Your task to perform on an android device: When is my next appointment? Image 0: 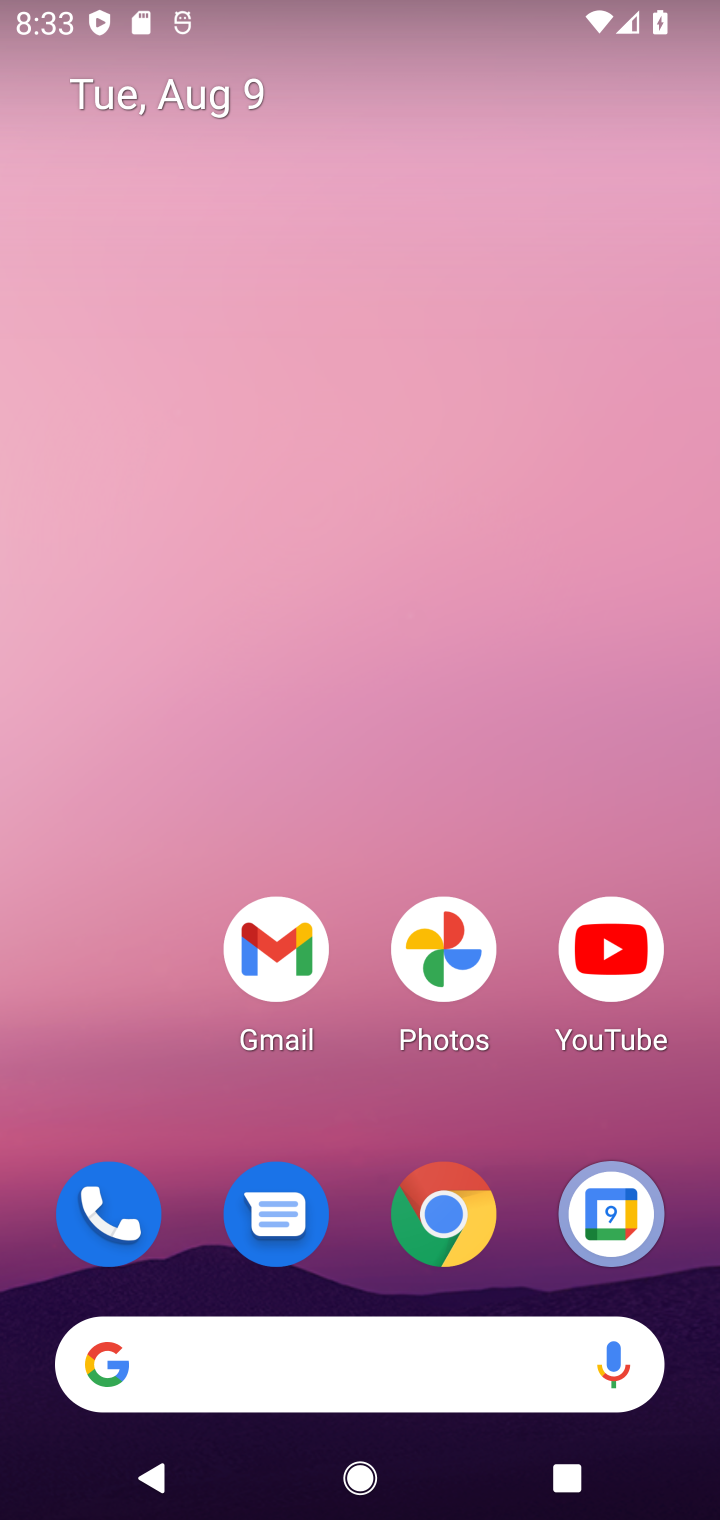
Step 0: drag from (87, 1351) to (306, 831)
Your task to perform on an android device: When is my next appointment? Image 1: 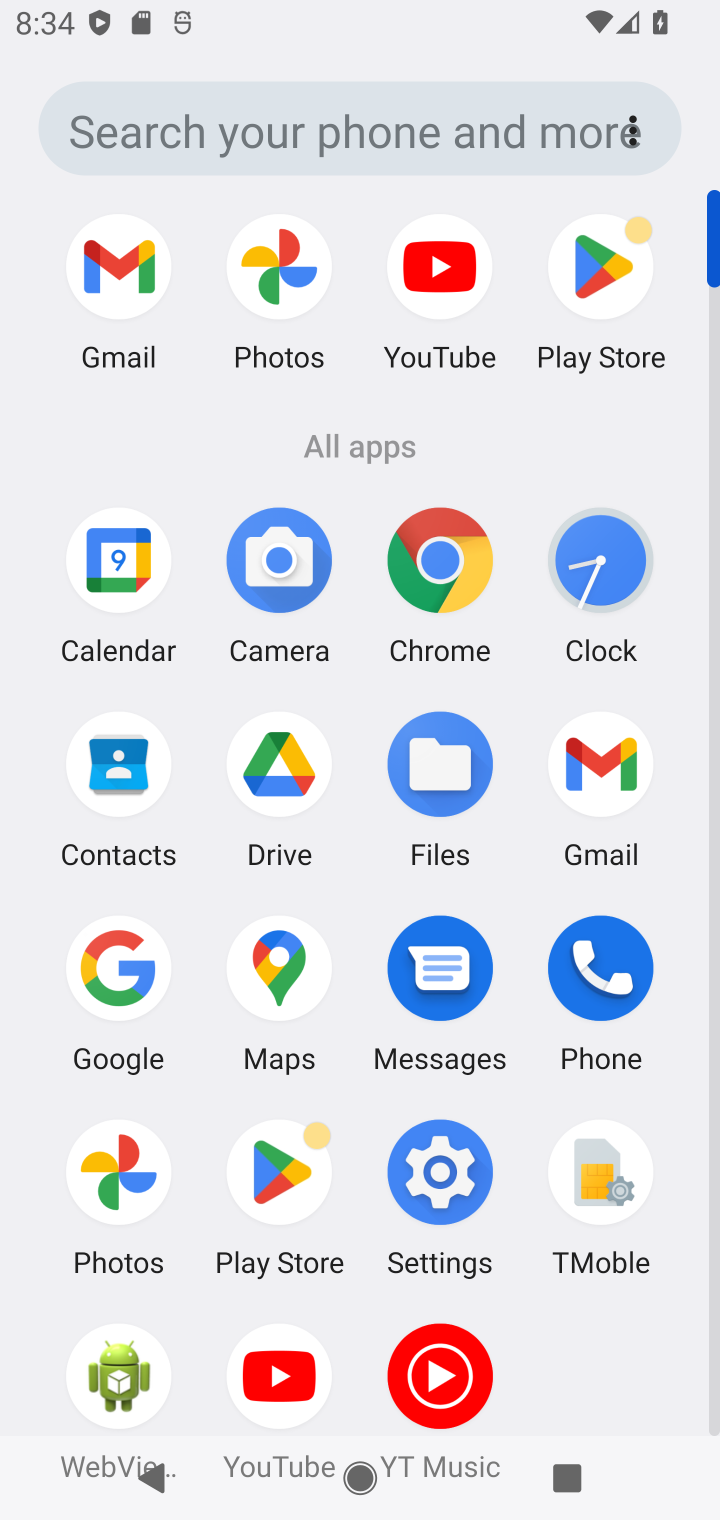
Step 1: click (132, 561)
Your task to perform on an android device: When is my next appointment? Image 2: 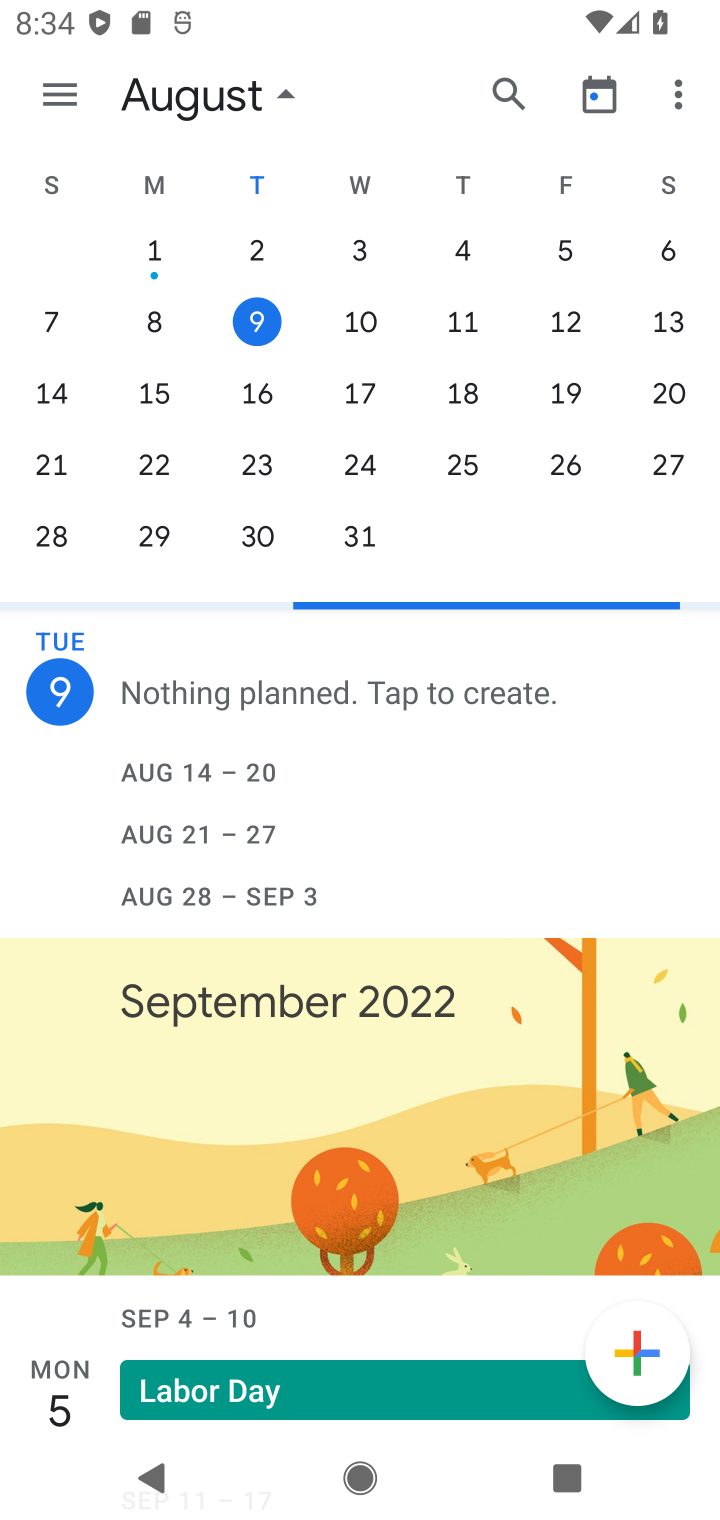
Step 2: click (132, 561)
Your task to perform on an android device: When is my next appointment? Image 3: 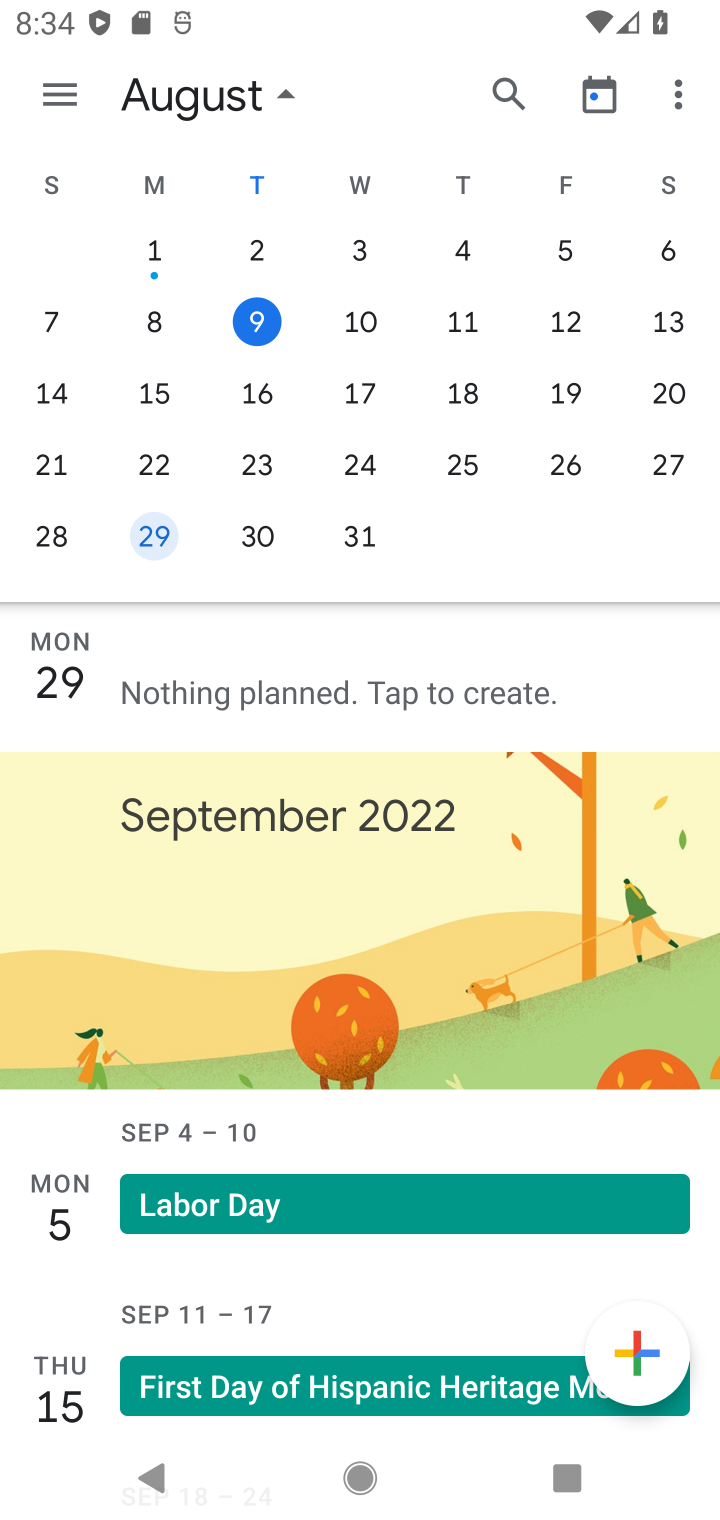
Step 3: task complete